Your task to perform on an android device: see creations saved in the google photos Image 0: 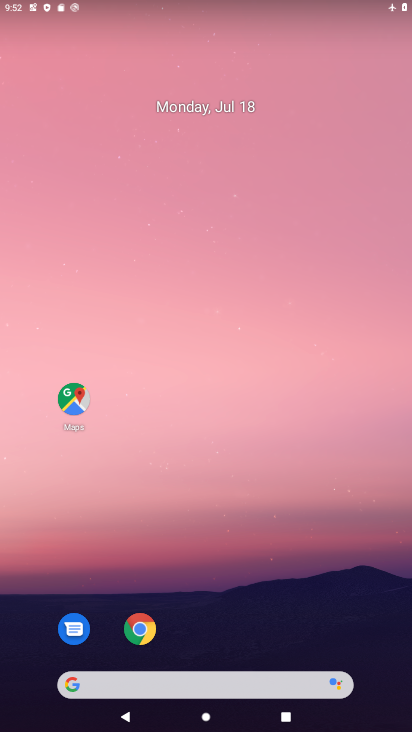
Step 0: drag from (310, 574) to (189, 64)
Your task to perform on an android device: see creations saved in the google photos Image 1: 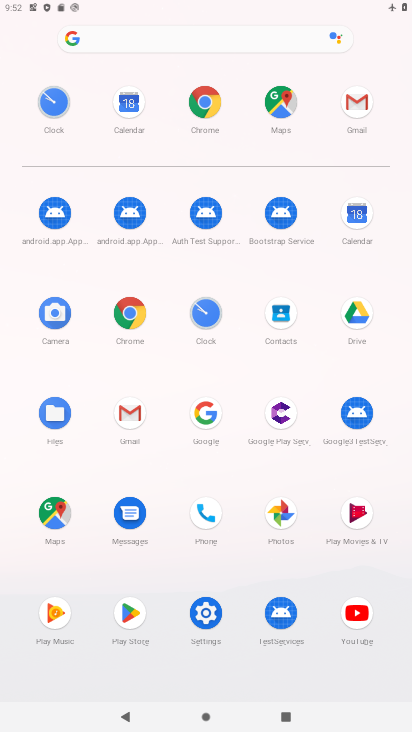
Step 1: click (288, 511)
Your task to perform on an android device: see creations saved in the google photos Image 2: 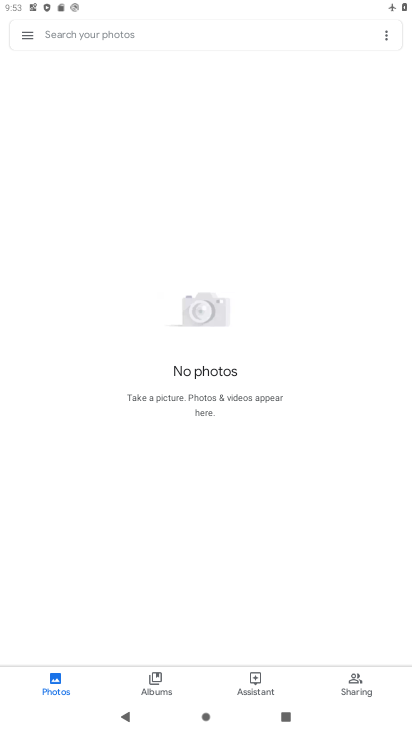
Step 2: click (256, 684)
Your task to perform on an android device: see creations saved in the google photos Image 3: 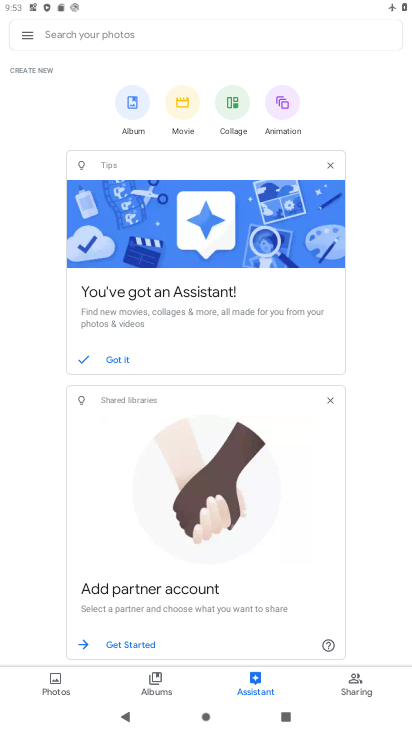
Step 3: task complete